Your task to perform on an android device: change the clock display to show seconds Image 0: 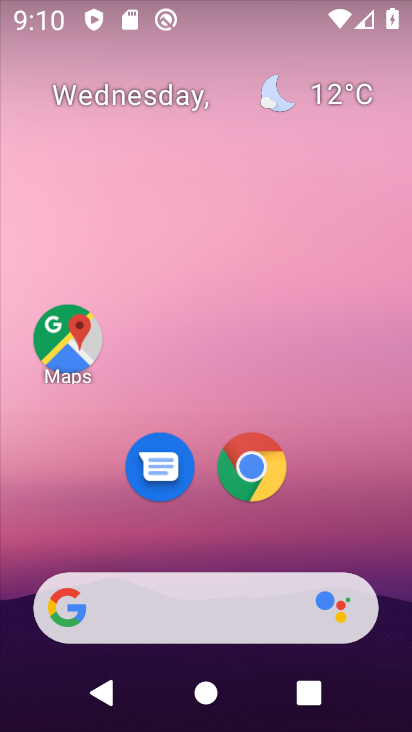
Step 0: press home button
Your task to perform on an android device: change the clock display to show seconds Image 1: 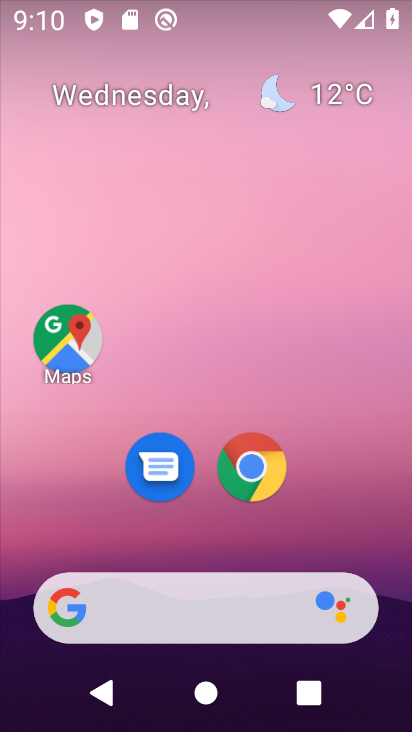
Step 1: drag from (381, 424) to (365, 10)
Your task to perform on an android device: change the clock display to show seconds Image 2: 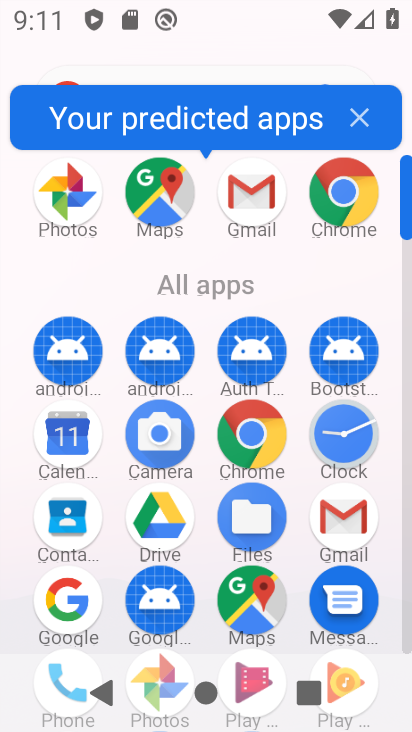
Step 2: click (405, 648)
Your task to perform on an android device: change the clock display to show seconds Image 3: 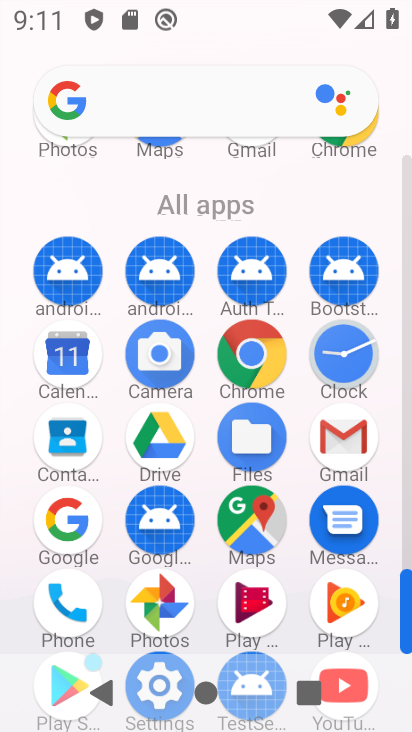
Step 3: drag from (402, 601) to (411, 730)
Your task to perform on an android device: change the clock display to show seconds Image 4: 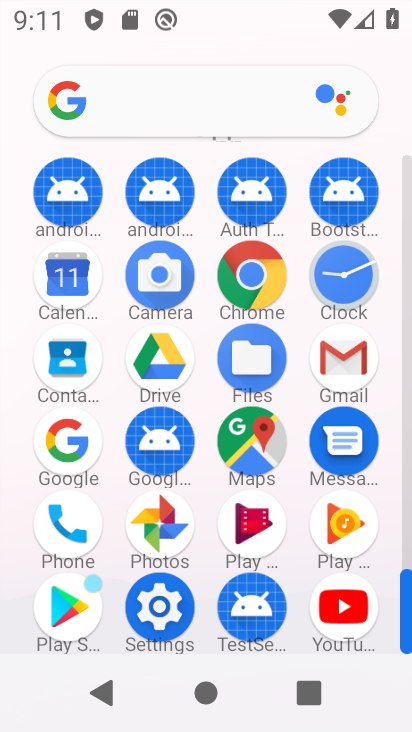
Step 4: click (159, 613)
Your task to perform on an android device: change the clock display to show seconds Image 5: 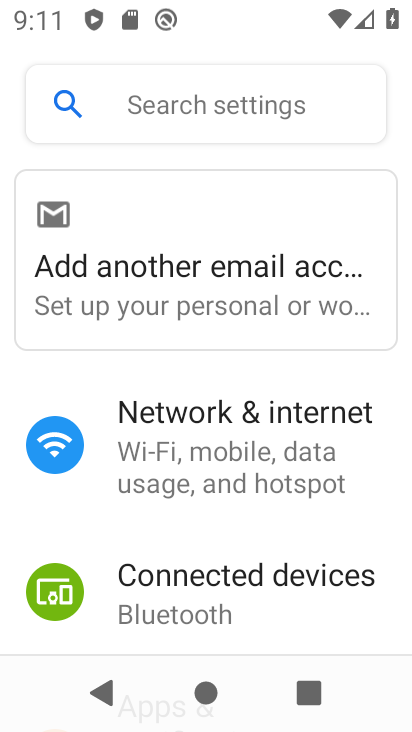
Step 5: drag from (228, 523) to (250, 234)
Your task to perform on an android device: change the clock display to show seconds Image 6: 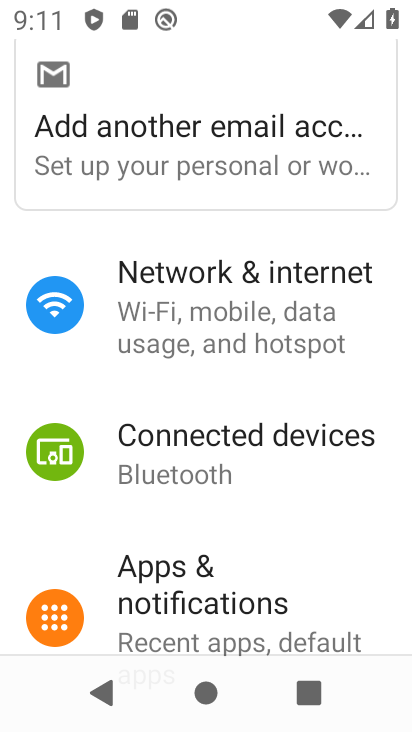
Step 6: drag from (266, 543) to (329, 342)
Your task to perform on an android device: change the clock display to show seconds Image 7: 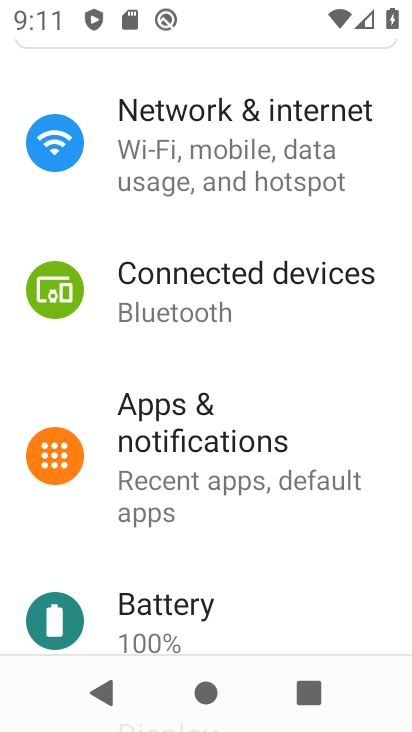
Step 7: press home button
Your task to perform on an android device: change the clock display to show seconds Image 8: 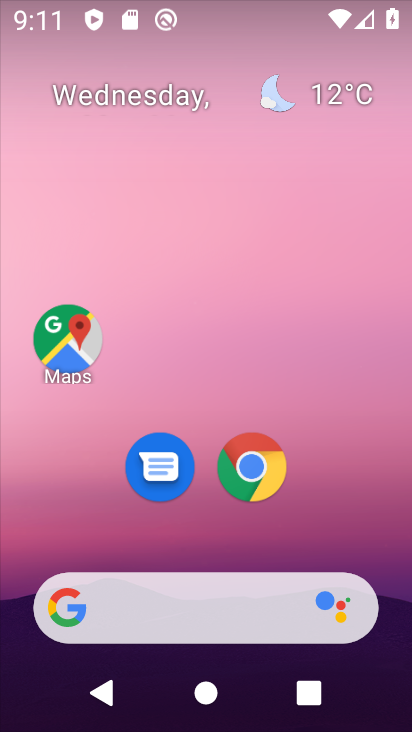
Step 8: drag from (350, 527) to (335, 69)
Your task to perform on an android device: change the clock display to show seconds Image 9: 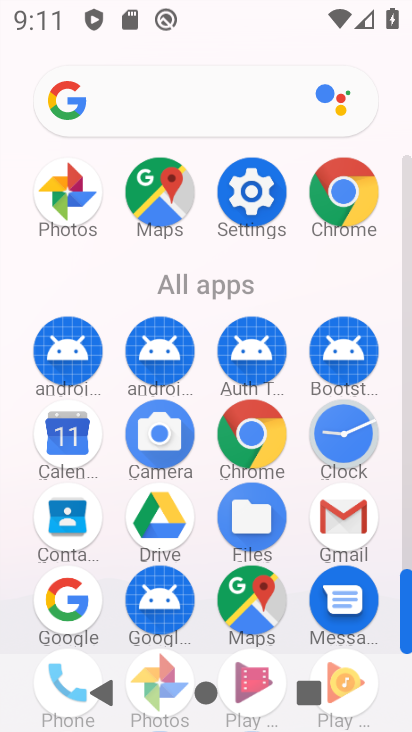
Step 9: click (346, 454)
Your task to perform on an android device: change the clock display to show seconds Image 10: 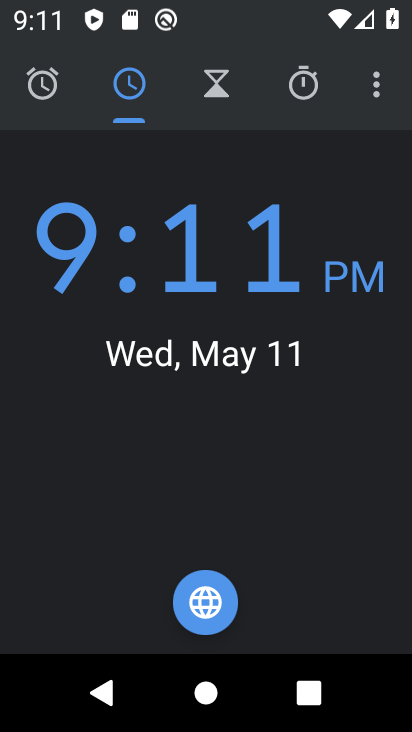
Step 10: click (371, 84)
Your task to perform on an android device: change the clock display to show seconds Image 11: 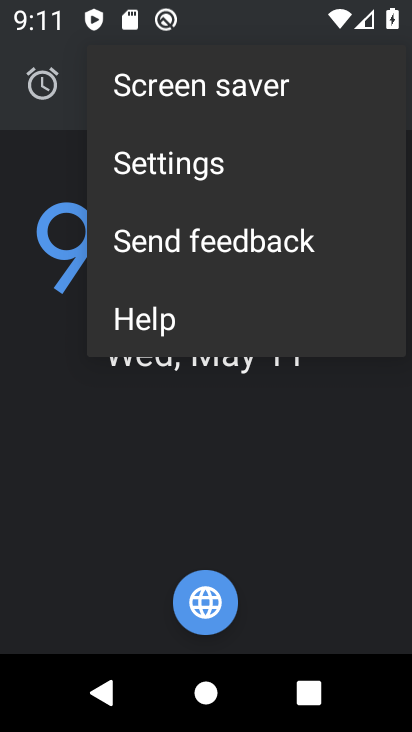
Step 11: click (227, 173)
Your task to perform on an android device: change the clock display to show seconds Image 12: 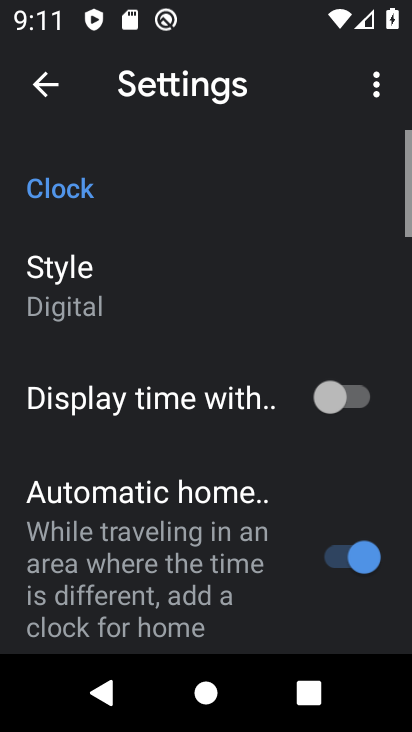
Step 12: click (298, 407)
Your task to perform on an android device: change the clock display to show seconds Image 13: 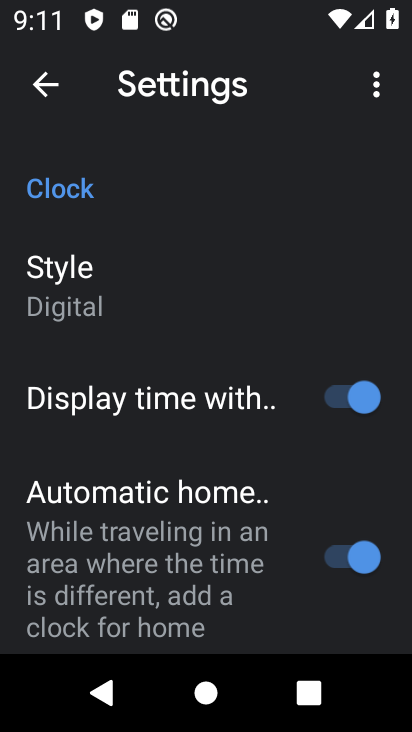
Step 13: task complete